Your task to perform on an android device: open chrome and create a bookmark for the current page Image 0: 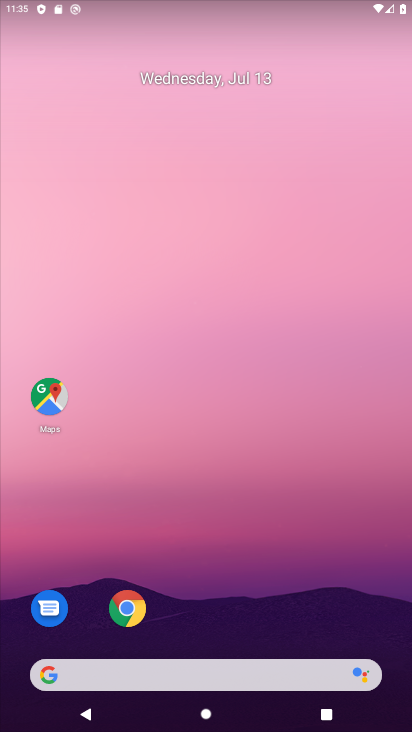
Step 0: click (123, 602)
Your task to perform on an android device: open chrome and create a bookmark for the current page Image 1: 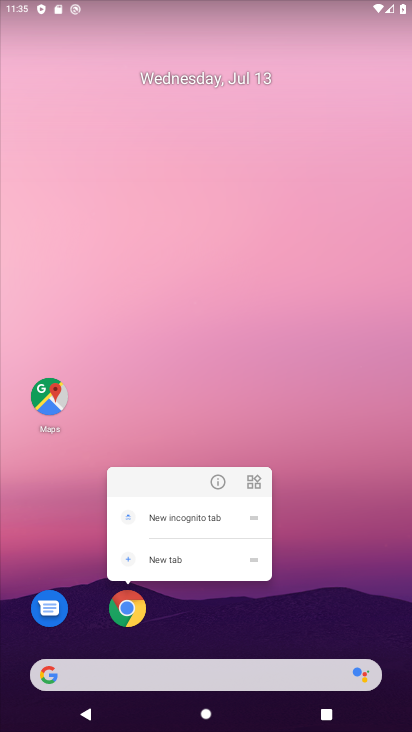
Step 1: click (124, 602)
Your task to perform on an android device: open chrome and create a bookmark for the current page Image 2: 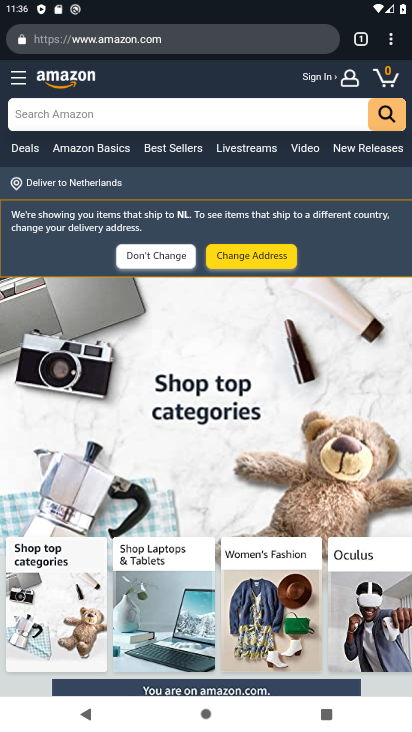
Step 2: click (396, 49)
Your task to perform on an android device: open chrome and create a bookmark for the current page Image 3: 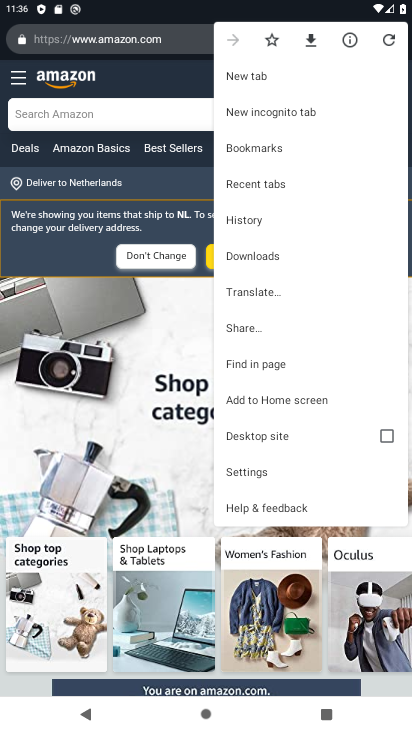
Step 3: click (277, 144)
Your task to perform on an android device: open chrome and create a bookmark for the current page Image 4: 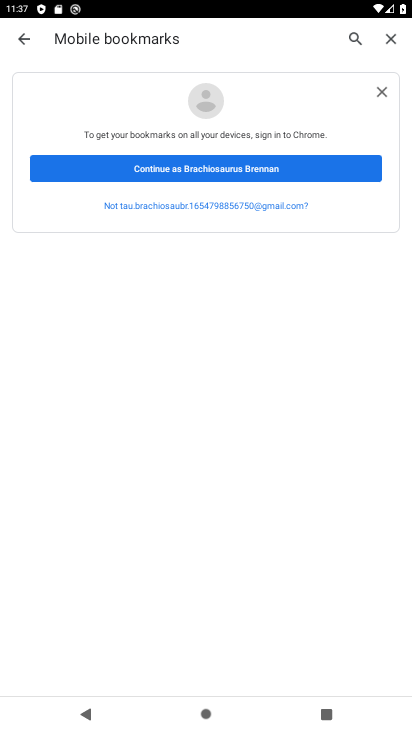
Step 4: click (381, 98)
Your task to perform on an android device: open chrome and create a bookmark for the current page Image 5: 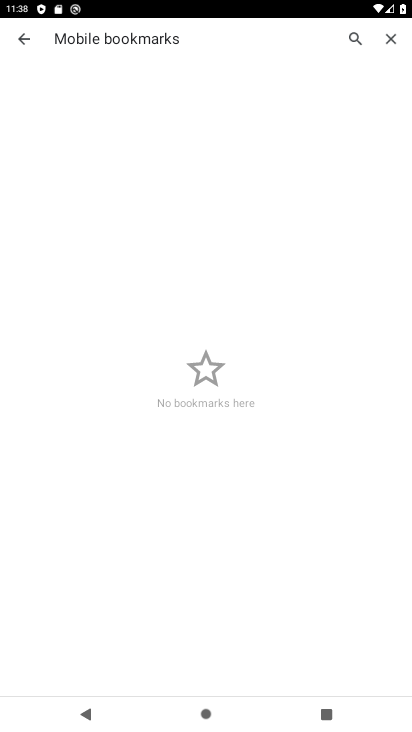
Step 5: task complete